Your task to perform on an android device: turn off javascript in the chrome app Image 0: 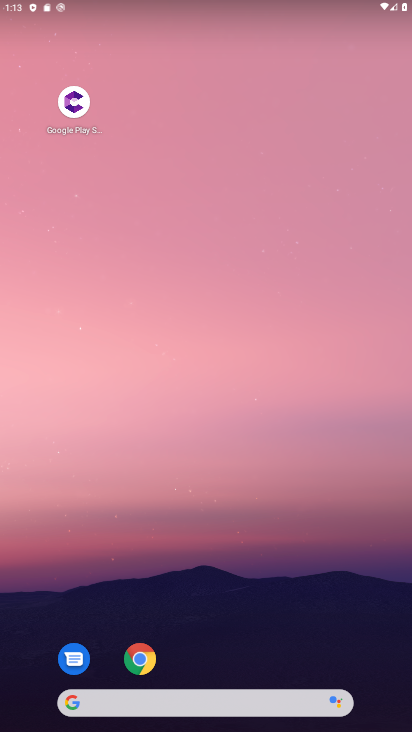
Step 0: click (140, 661)
Your task to perform on an android device: turn off javascript in the chrome app Image 1: 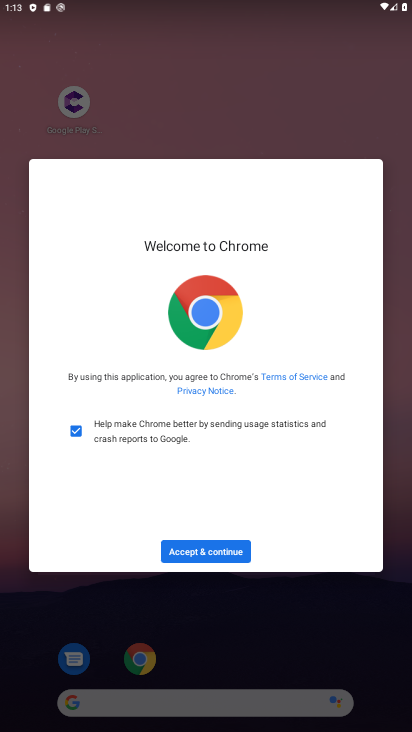
Step 1: click (200, 547)
Your task to perform on an android device: turn off javascript in the chrome app Image 2: 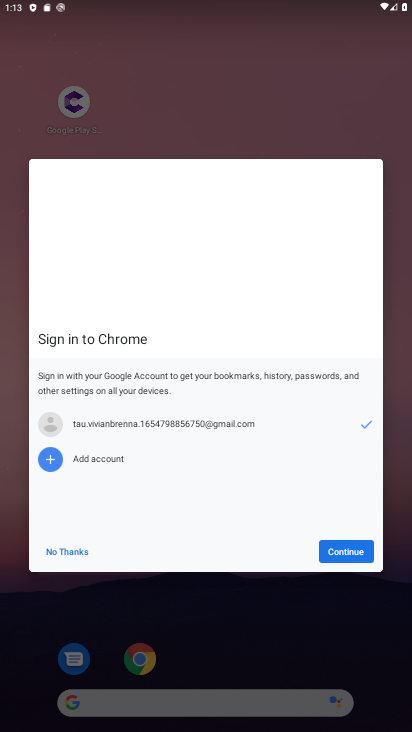
Step 2: click (350, 546)
Your task to perform on an android device: turn off javascript in the chrome app Image 3: 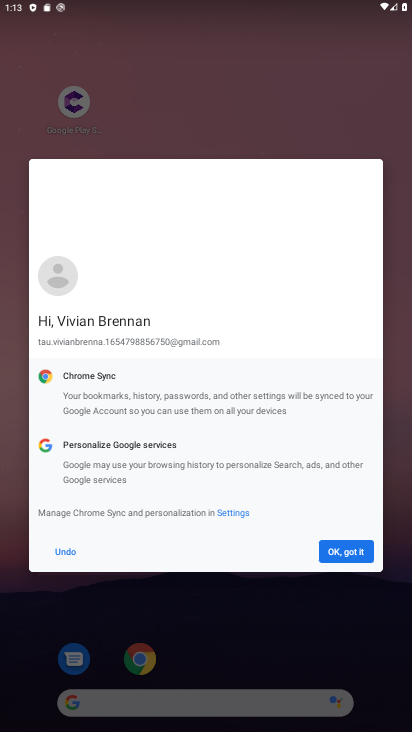
Step 3: click (350, 550)
Your task to perform on an android device: turn off javascript in the chrome app Image 4: 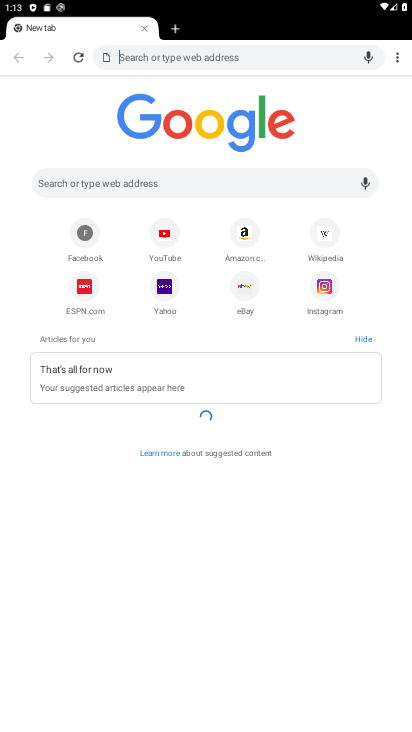
Step 4: click (397, 61)
Your task to perform on an android device: turn off javascript in the chrome app Image 5: 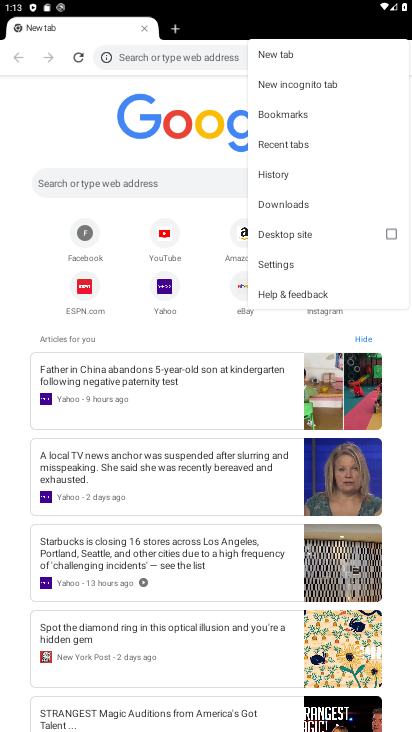
Step 5: click (279, 265)
Your task to perform on an android device: turn off javascript in the chrome app Image 6: 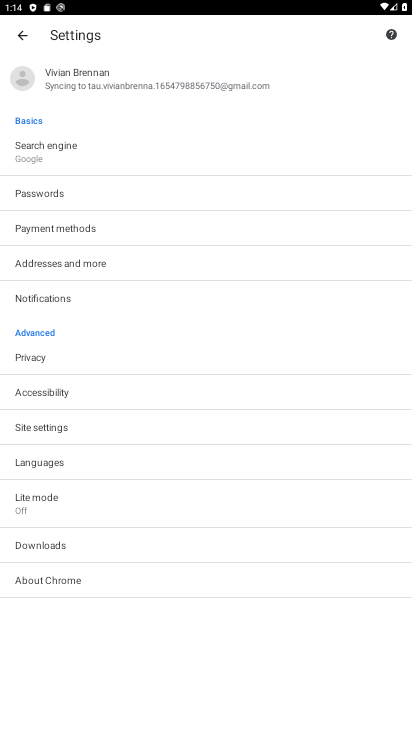
Step 6: click (49, 429)
Your task to perform on an android device: turn off javascript in the chrome app Image 7: 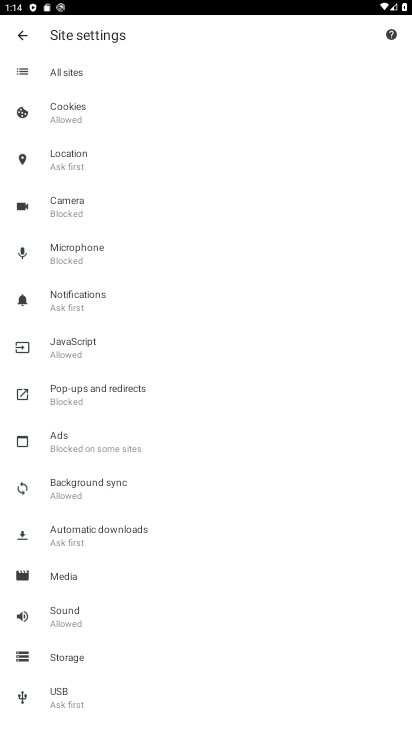
Step 7: click (74, 341)
Your task to perform on an android device: turn off javascript in the chrome app Image 8: 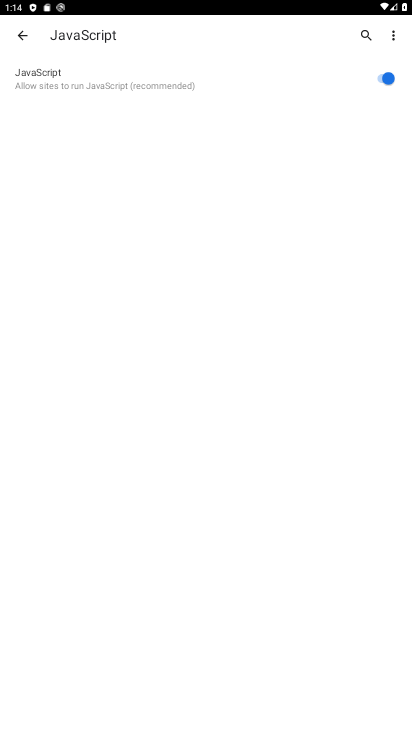
Step 8: click (384, 76)
Your task to perform on an android device: turn off javascript in the chrome app Image 9: 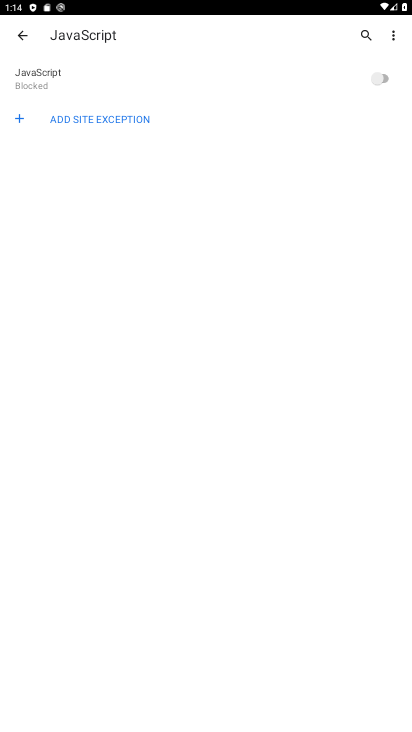
Step 9: task complete